Your task to perform on an android device: turn on airplane mode Image 0: 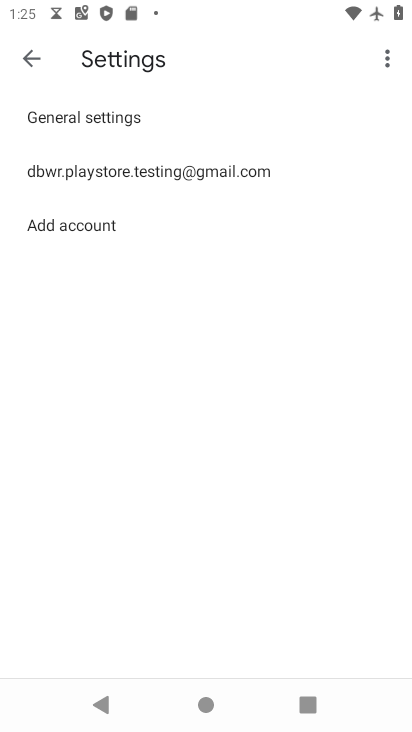
Step 0: press home button
Your task to perform on an android device: turn on airplane mode Image 1: 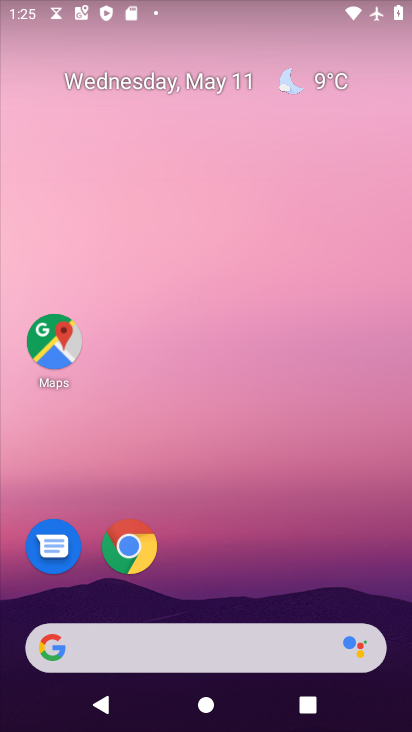
Step 1: drag from (283, 0) to (277, 691)
Your task to perform on an android device: turn on airplane mode Image 2: 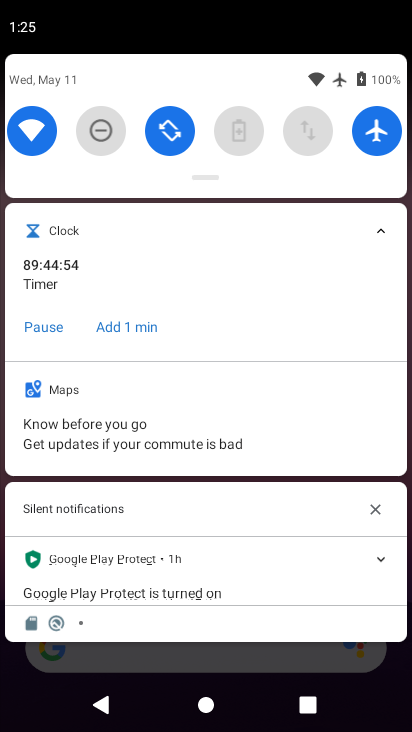
Step 2: drag from (238, 171) to (257, 640)
Your task to perform on an android device: turn on airplane mode Image 3: 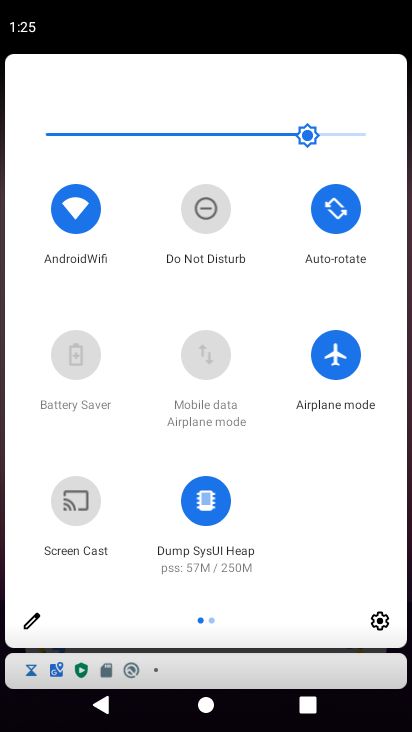
Step 3: click (329, 348)
Your task to perform on an android device: turn on airplane mode Image 4: 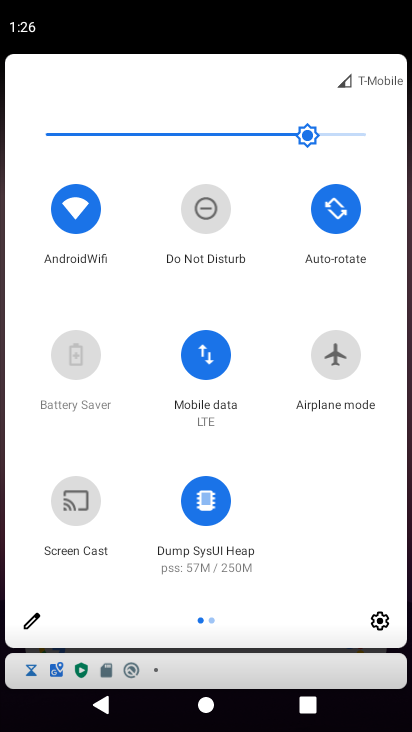
Step 4: task complete